Your task to perform on an android device: What is the recent news? Image 0: 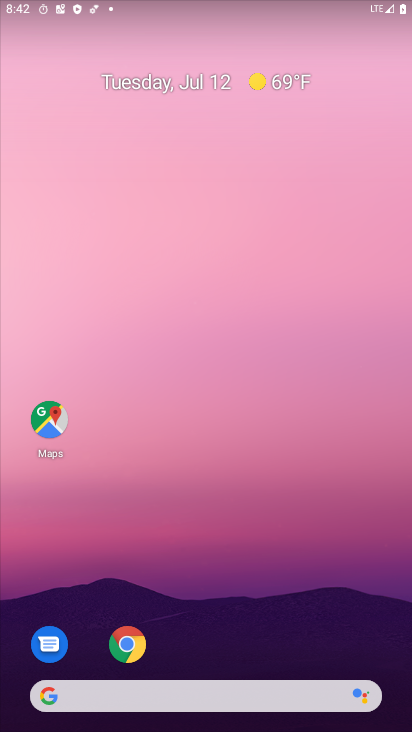
Step 0: press home button
Your task to perform on an android device: What is the recent news? Image 1: 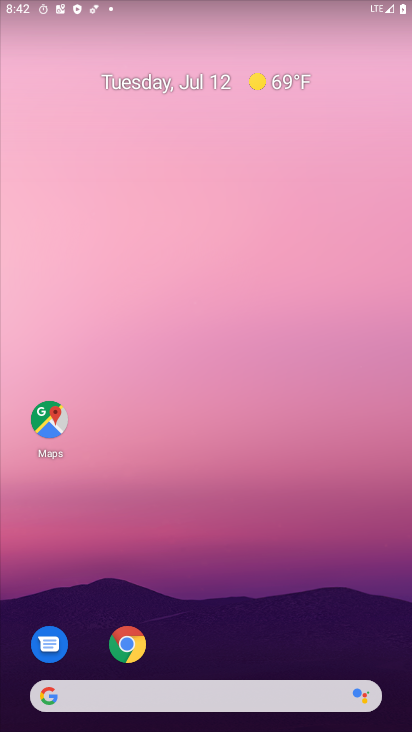
Step 1: task complete